Your task to perform on an android device: Open the web browser Image 0: 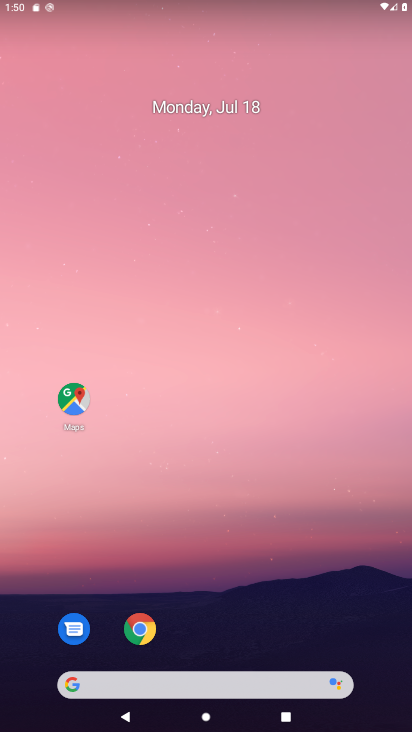
Step 0: drag from (205, 620) to (199, 11)
Your task to perform on an android device: Open the web browser Image 1: 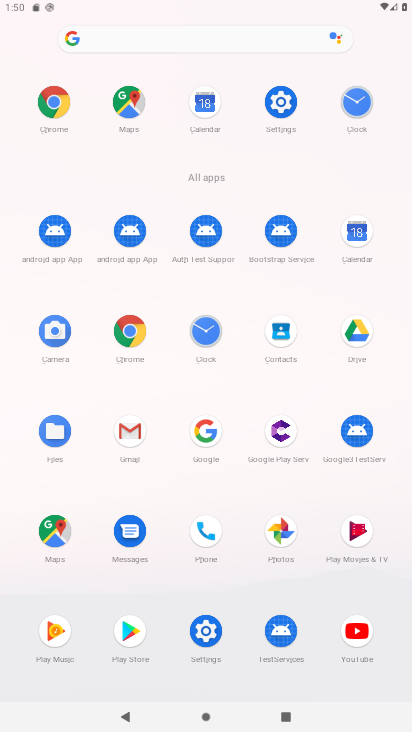
Step 1: click (134, 346)
Your task to perform on an android device: Open the web browser Image 2: 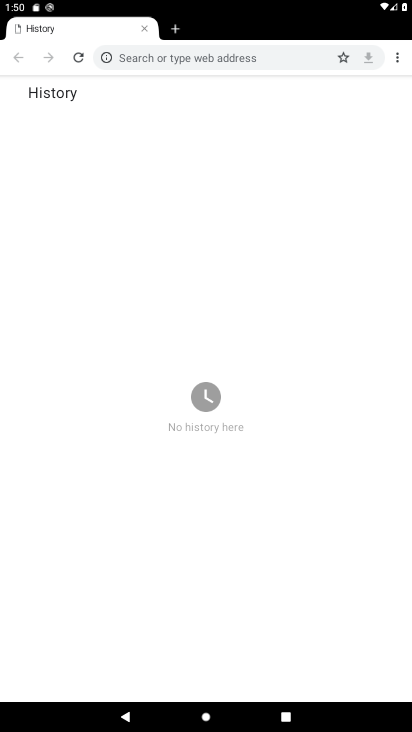
Step 2: task complete